Your task to perform on an android device: change text size in settings app Image 0: 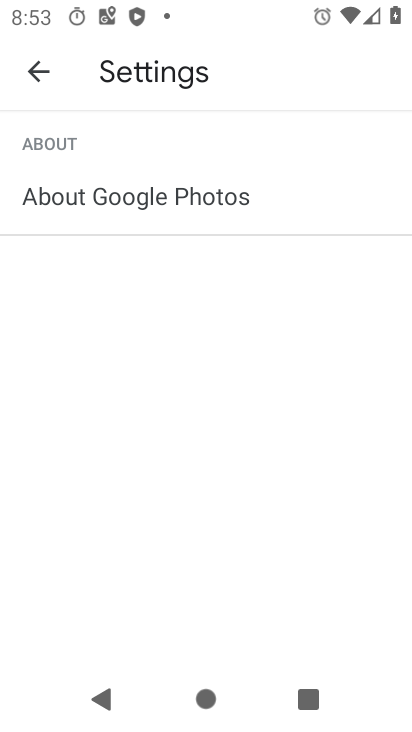
Step 0: press back button
Your task to perform on an android device: change text size in settings app Image 1: 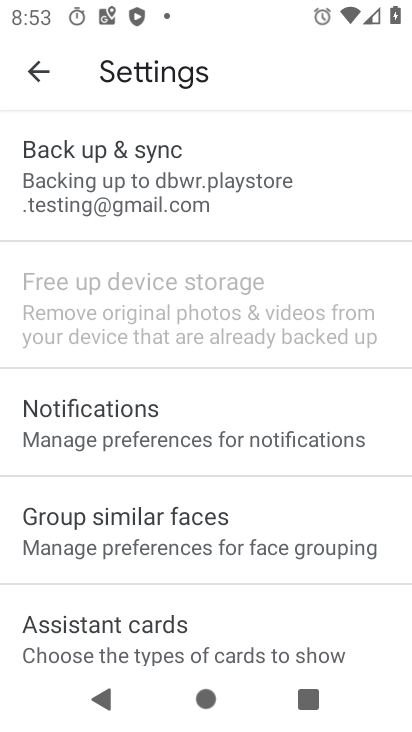
Step 1: press back button
Your task to perform on an android device: change text size in settings app Image 2: 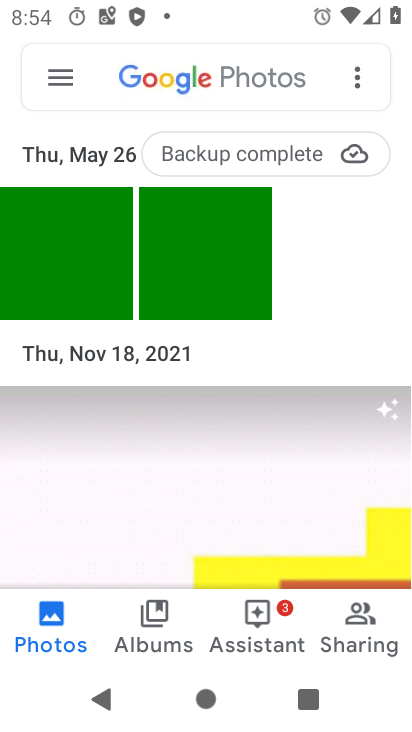
Step 2: press home button
Your task to perform on an android device: change text size in settings app Image 3: 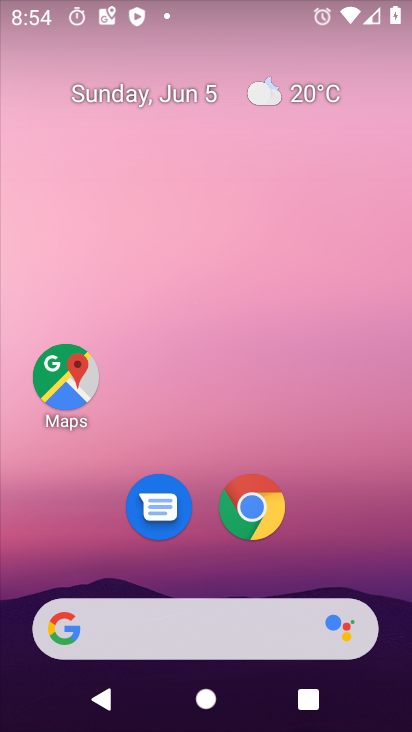
Step 3: drag from (352, 486) to (276, 13)
Your task to perform on an android device: change text size in settings app Image 4: 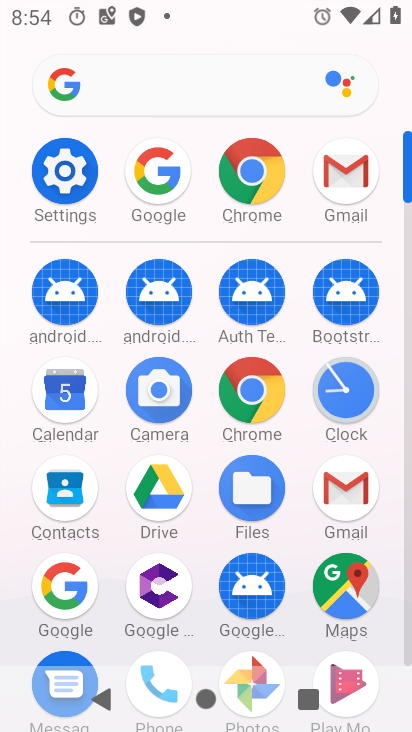
Step 4: click (65, 164)
Your task to perform on an android device: change text size in settings app Image 5: 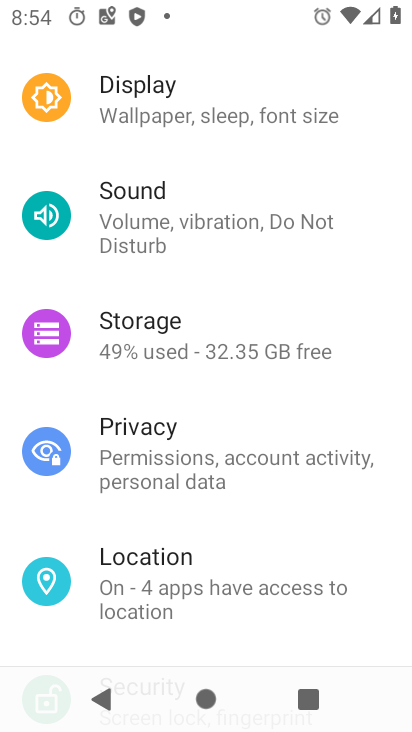
Step 5: drag from (220, 132) to (232, 510)
Your task to perform on an android device: change text size in settings app Image 6: 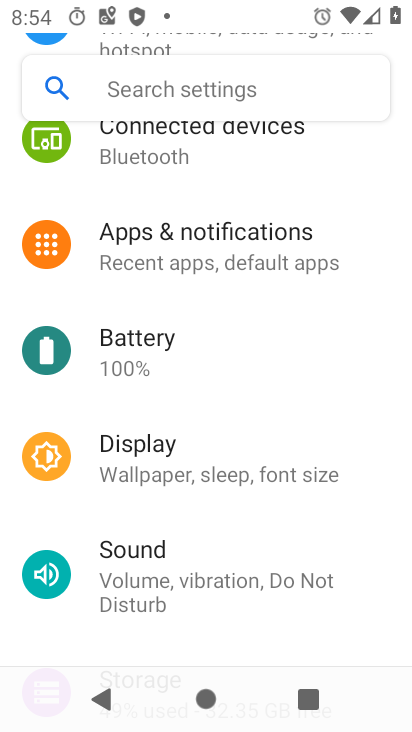
Step 6: click (224, 460)
Your task to perform on an android device: change text size in settings app Image 7: 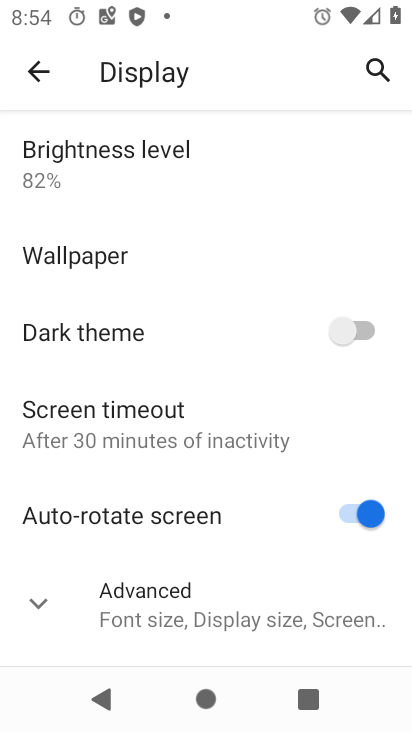
Step 7: click (50, 593)
Your task to perform on an android device: change text size in settings app Image 8: 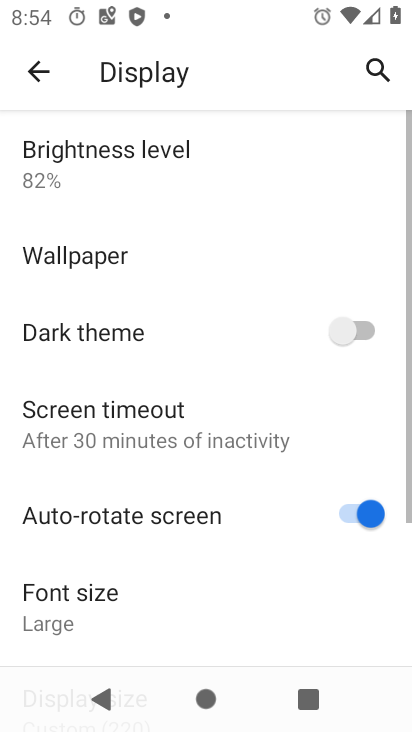
Step 8: drag from (210, 540) to (216, 147)
Your task to perform on an android device: change text size in settings app Image 9: 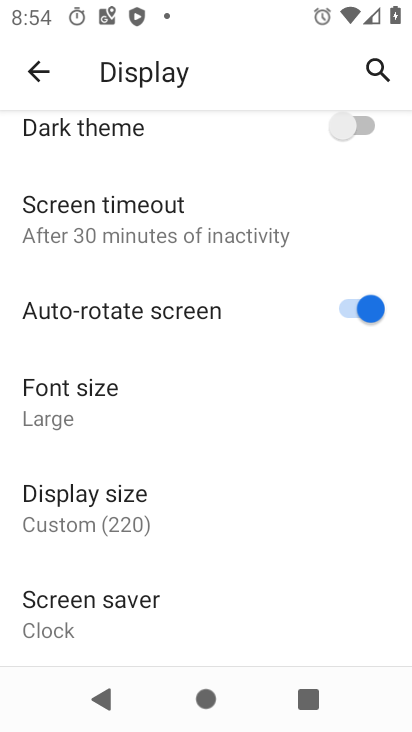
Step 9: click (105, 405)
Your task to perform on an android device: change text size in settings app Image 10: 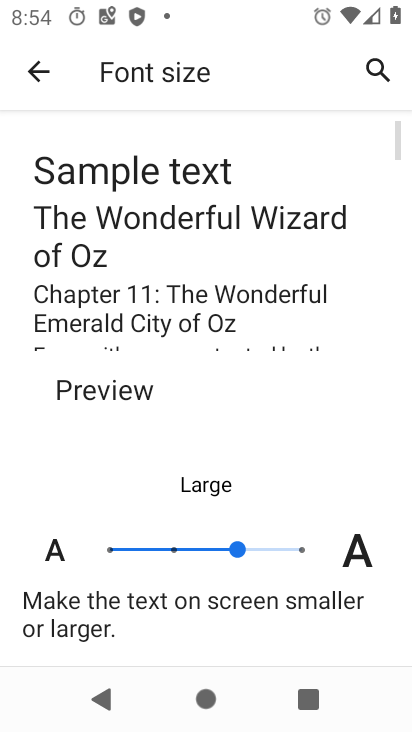
Step 10: click (287, 552)
Your task to perform on an android device: change text size in settings app Image 11: 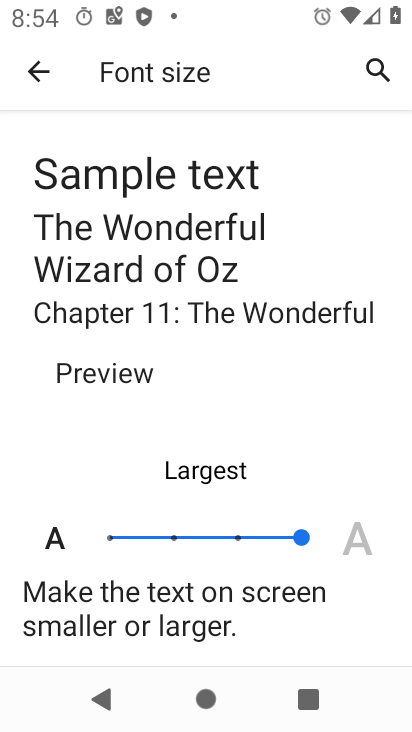
Step 11: task complete